Your task to perform on an android device: Check the weather Image 0: 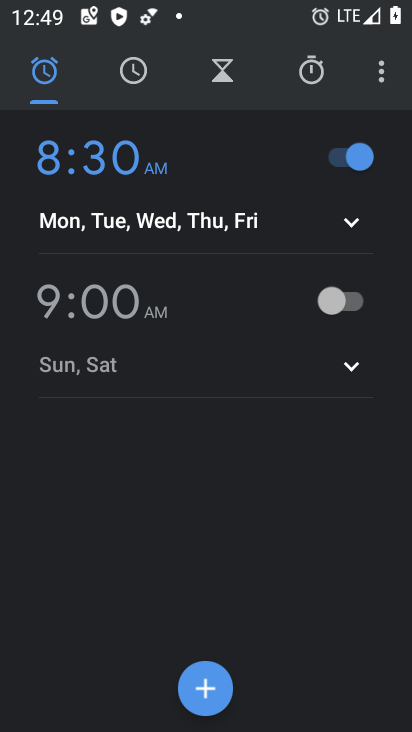
Step 0: press home button
Your task to perform on an android device: Check the weather Image 1: 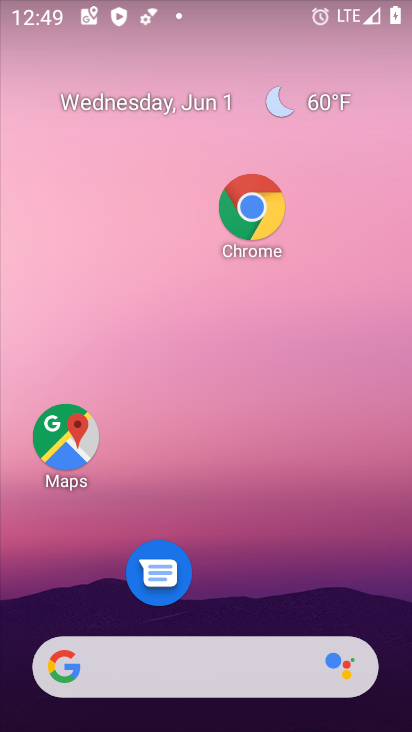
Step 1: drag from (221, 579) to (226, 206)
Your task to perform on an android device: Check the weather Image 2: 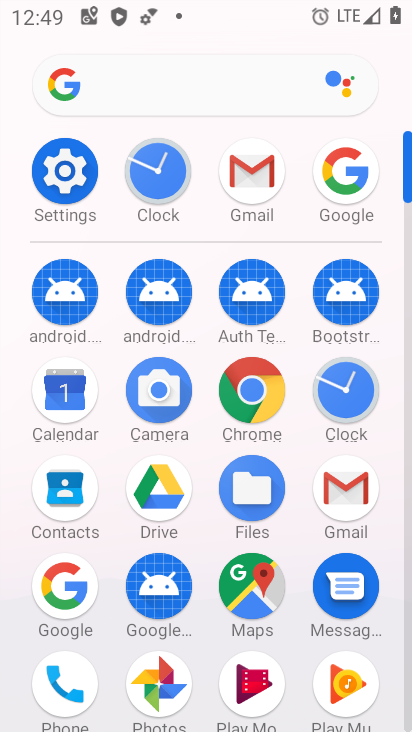
Step 2: click (80, 586)
Your task to perform on an android device: Check the weather Image 3: 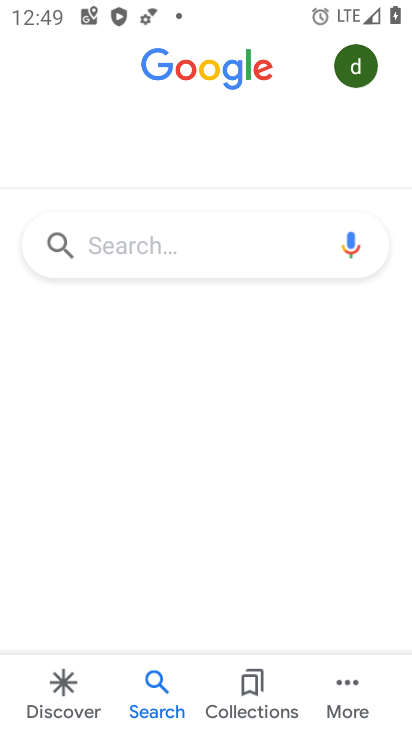
Step 3: click (139, 244)
Your task to perform on an android device: Check the weather Image 4: 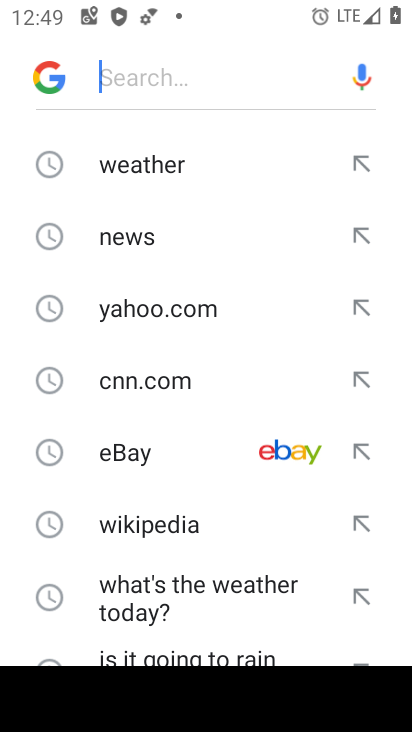
Step 4: click (196, 175)
Your task to perform on an android device: Check the weather Image 5: 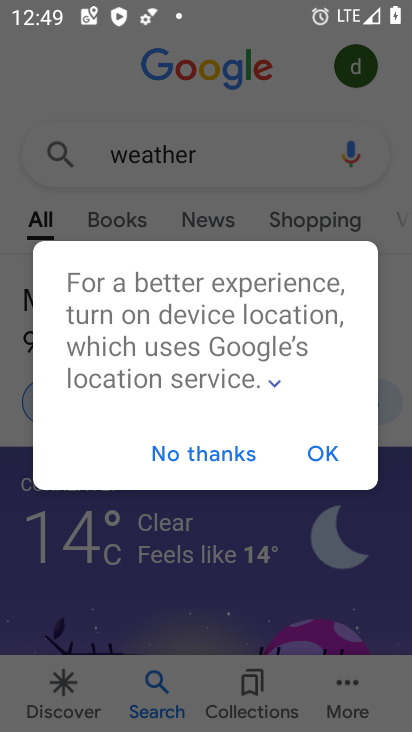
Step 5: click (305, 445)
Your task to perform on an android device: Check the weather Image 6: 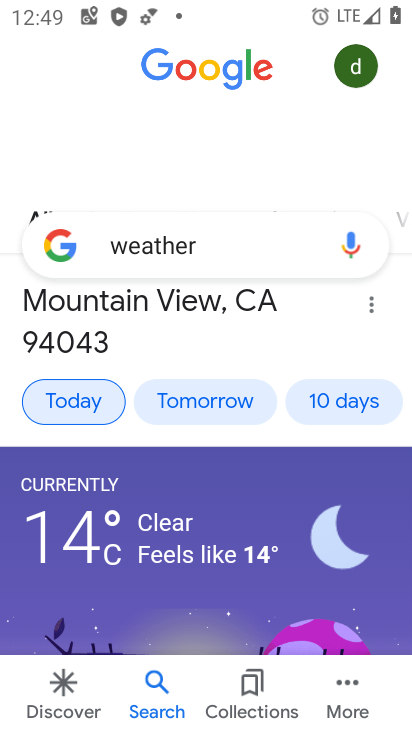
Step 6: task complete